Your task to perform on an android device: Go to CNN.com Image 0: 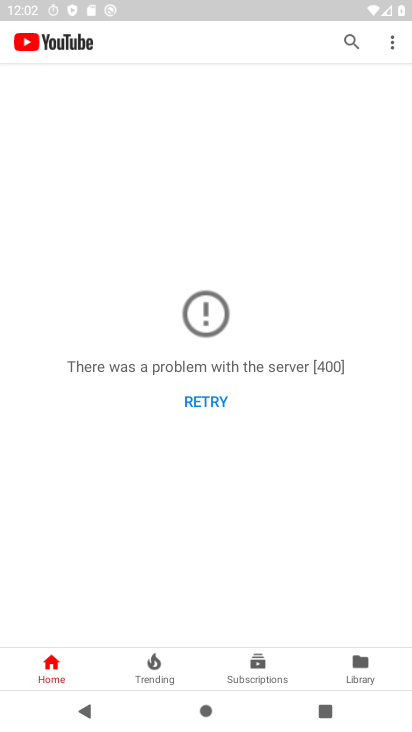
Step 0: press back button
Your task to perform on an android device: Go to CNN.com Image 1: 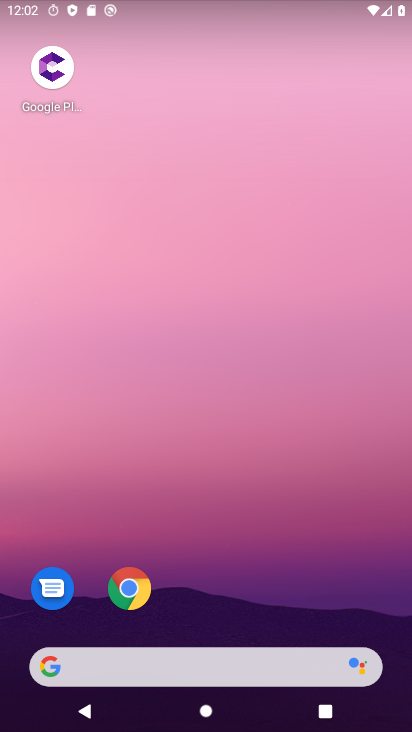
Step 1: click (180, 591)
Your task to perform on an android device: Go to CNN.com Image 2: 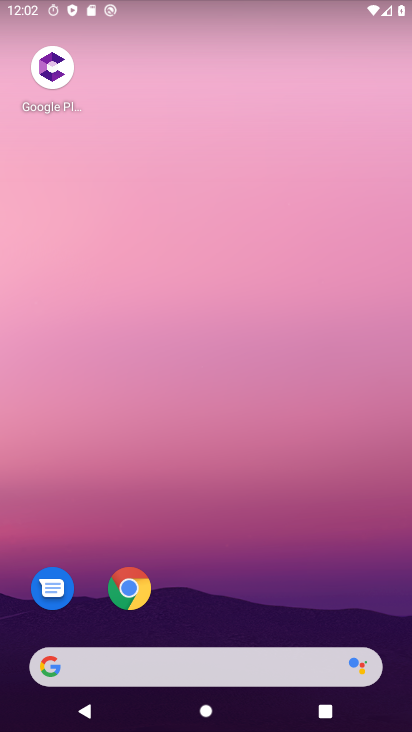
Step 2: click (138, 589)
Your task to perform on an android device: Go to CNN.com Image 3: 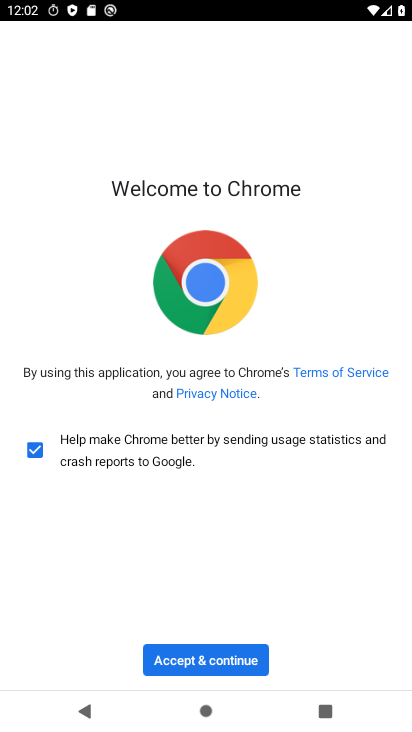
Step 3: click (238, 666)
Your task to perform on an android device: Go to CNN.com Image 4: 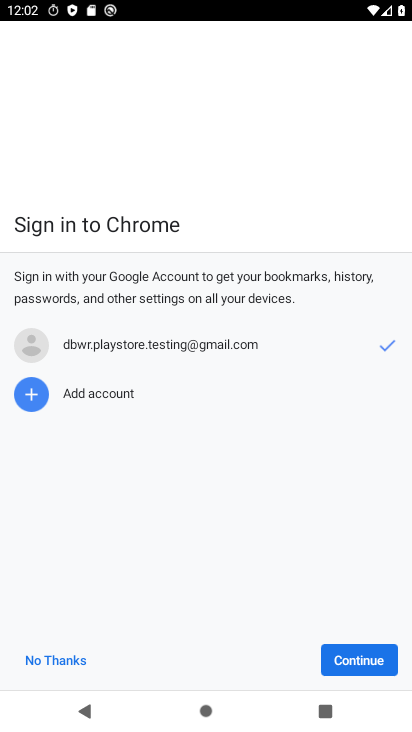
Step 4: click (363, 664)
Your task to perform on an android device: Go to CNN.com Image 5: 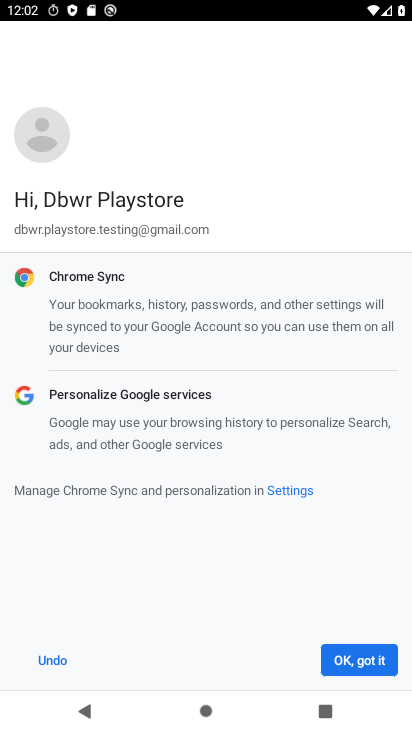
Step 5: click (365, 653)
Your task to perform on an android device: Go to CNN.com Image 6: 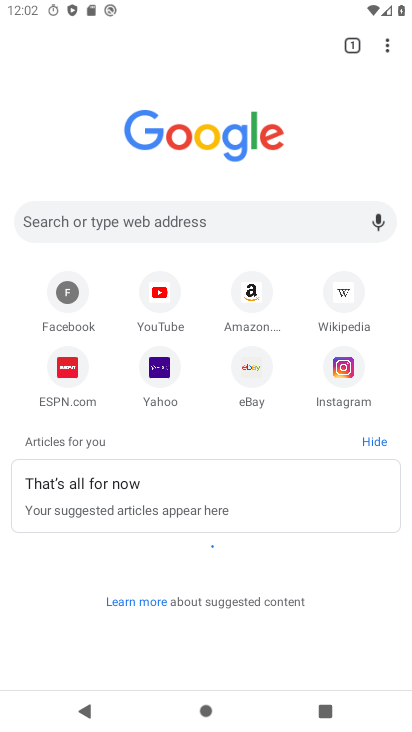
Step 6: click (211, 222)
Your task to perform on an android device: Go to CNN.com Image 7: 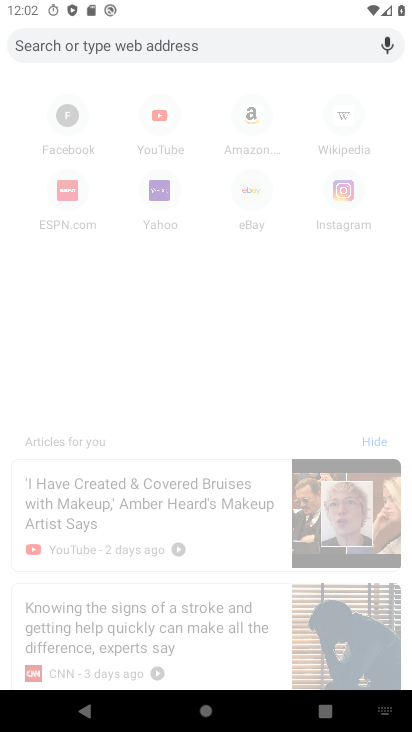
Step 7: type "cnn"
Your task to perform on an android device: Go to CNN.com Image 8: 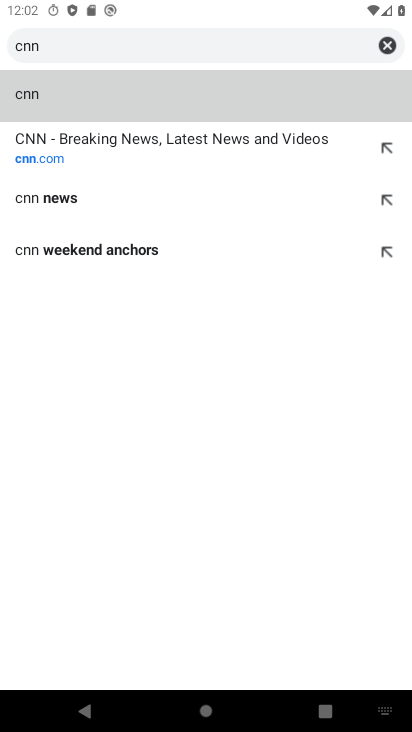
Step 8: click (105, 148)
Your task to perform on an android device: Go to CNN.com Image 9: 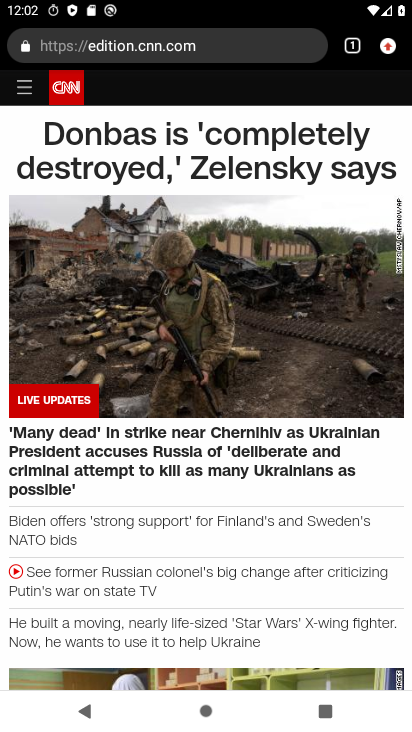
Step 9: task complete